Your task to perform on an android device: Open location settings Image 0: 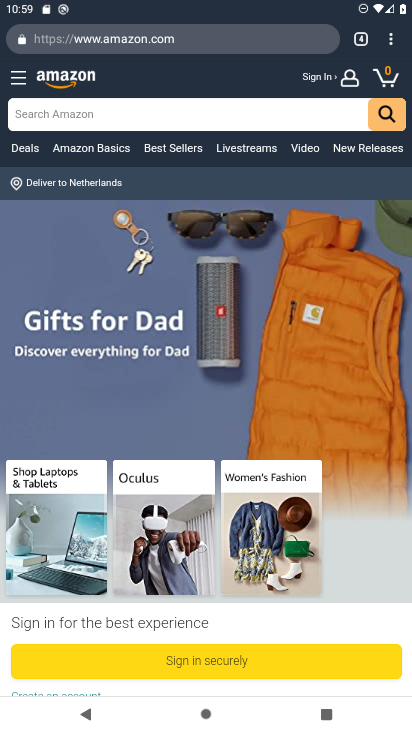
Step 0: press home button
Your task to perform on an android device: Open location settings Image 1: 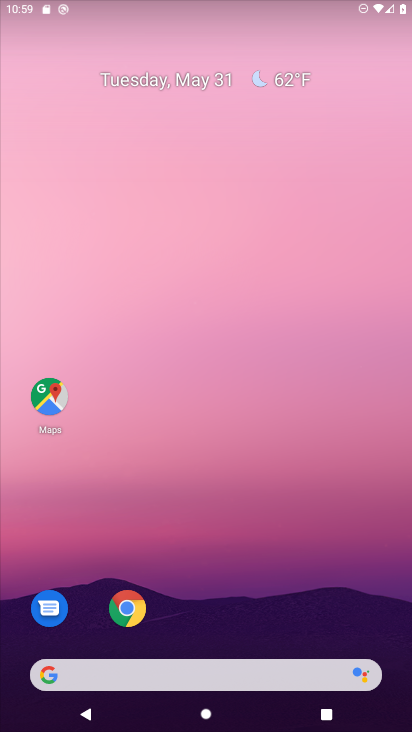
Step 1: drag from (373, 554) to (361, 236)
Your task to perform on an android device: Open location settings Image 2: 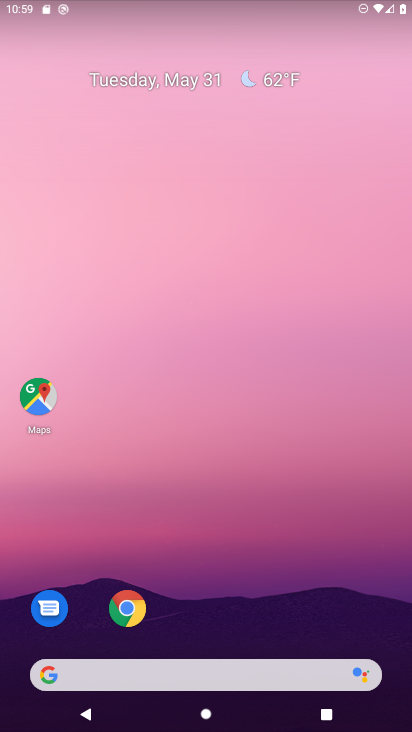
Step 2: drag from (370, 554) to (365, 137)
Your task to perform on an android device: Open location settings Image 3: 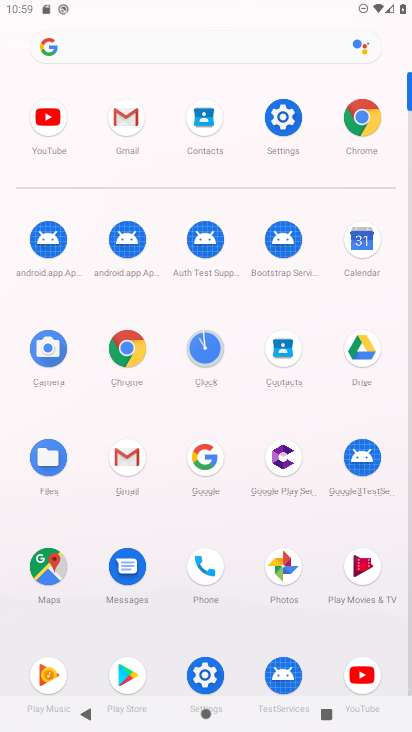
Step 3: click (295, 128)
Your task to perform on an android device: Open location settings Image 4: 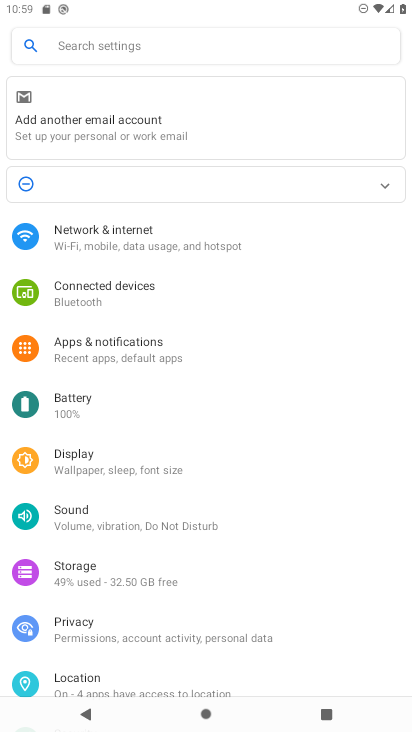
Step 4: drag from (243, 582) to (265, 467)
Your task to perform on an android device: Open location settings Image 5: 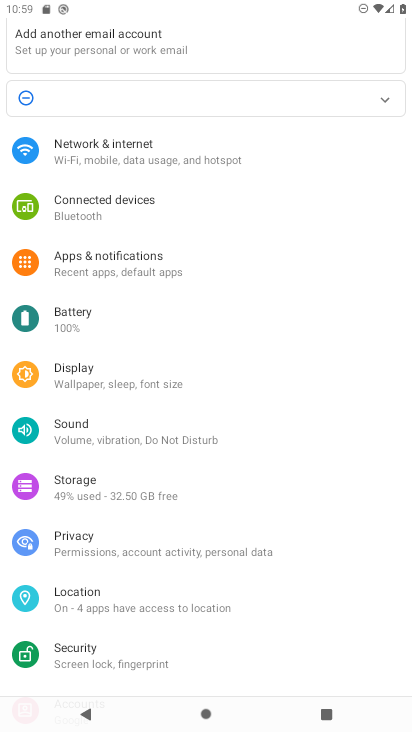
Step 5: drag from (209, 555) to (248, 319)
Your task to perform on an android device: Open location settings Image 6: 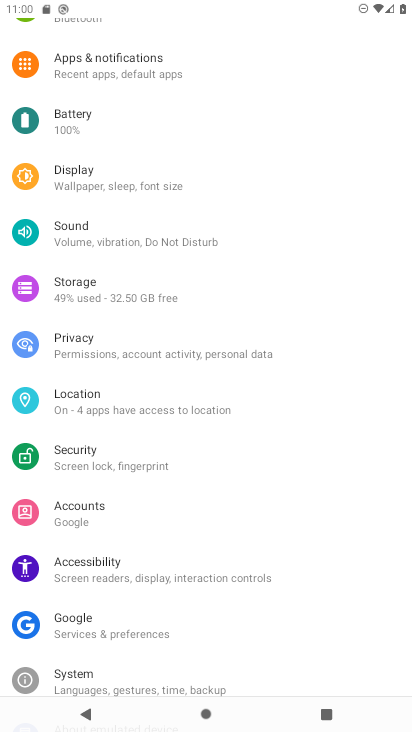
Step 6: drag from (163, 561) to (223, 262)
Your task to perform on an android device: Open location settings Image 7: 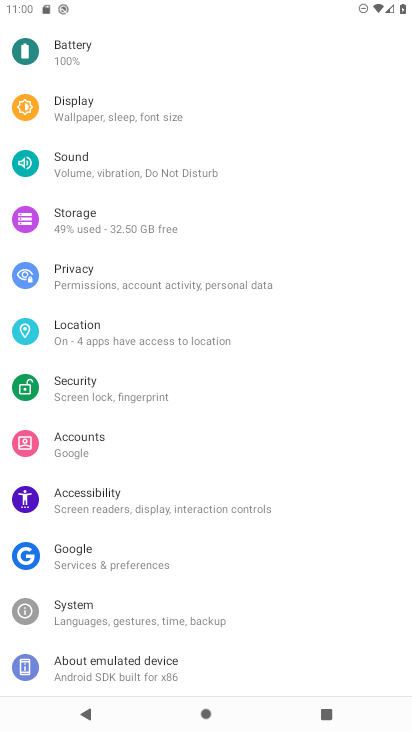
Step 7: click (186, 348)
Your task to perform on an android device: Open location settings Image 8: 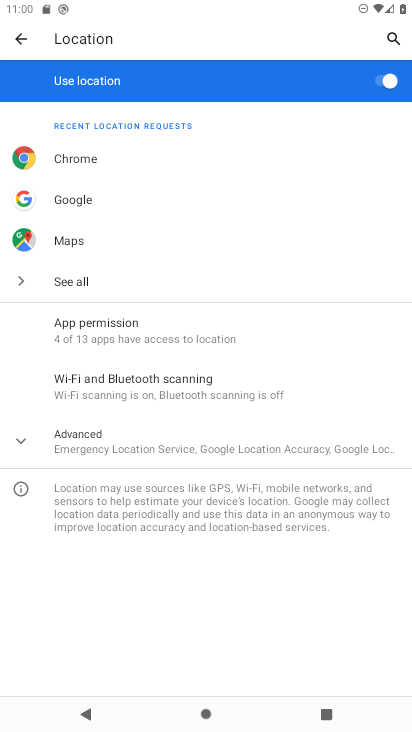
Step 8: task complete